Your task to perform on an android device: turn off priority inbox in the gmail app Image 0: 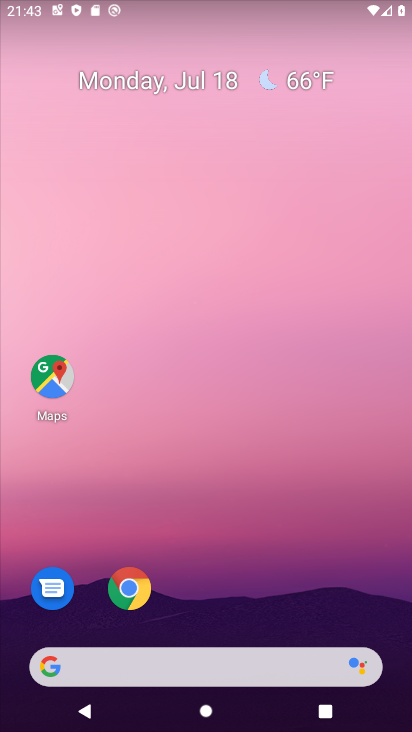
Step 0: press home button
Your task to perform on an android device: turn off priority inbox in the gmail app Image 1: 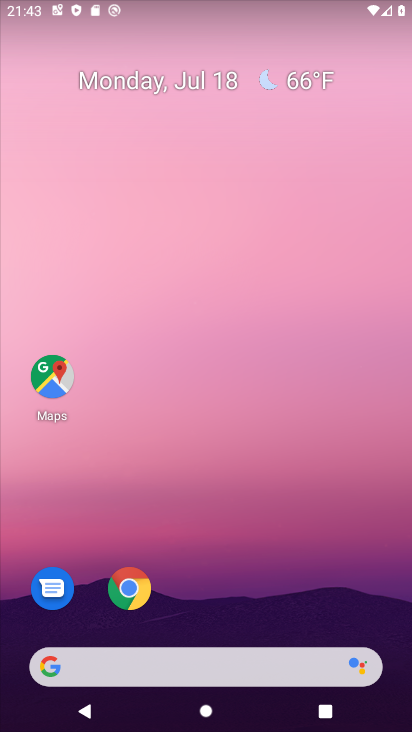
Step 1: drag from (129, 665) to (315, 163)
Your task to perform on an android device: turn off priority inbox in the gmail app Image 2: 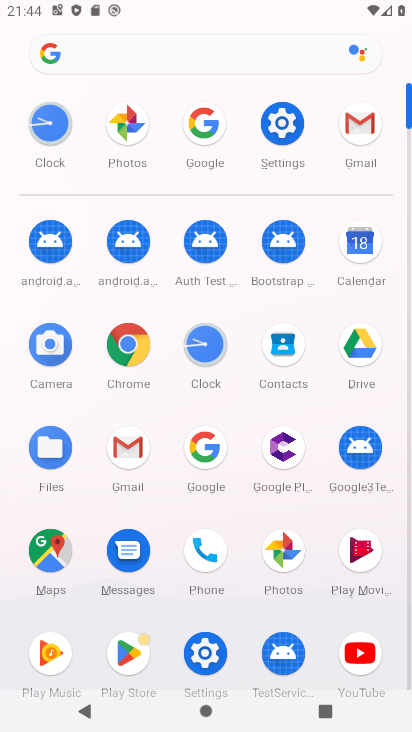
Step 2: click (353, 116)
Your task to perform on an android device: turn off priority inbox in the gmail app Image 3: 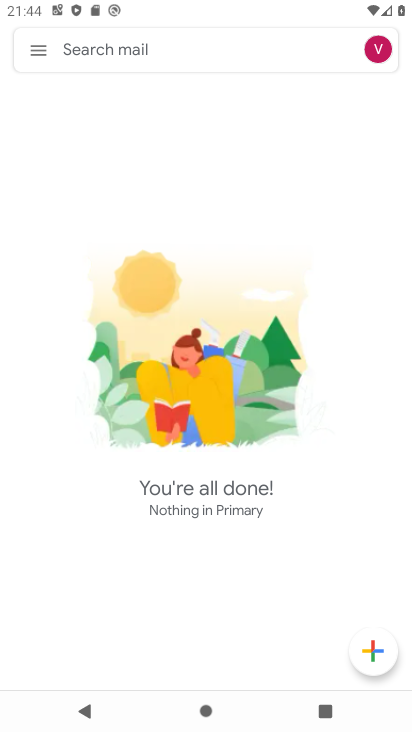
Step 3: click (42, 55)
Your task to perform on an android device: turn off priority inbox in the gmail app Image 4: 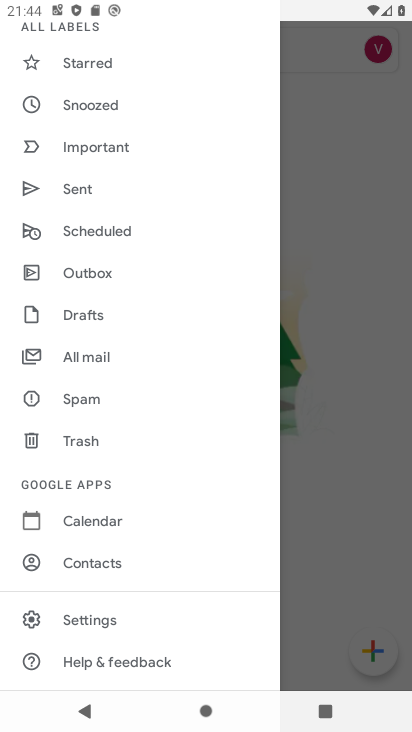
Step 4: click (104, 617)
Your task to perform on an android device: turn off priority inbox in the gmail app Image 5: 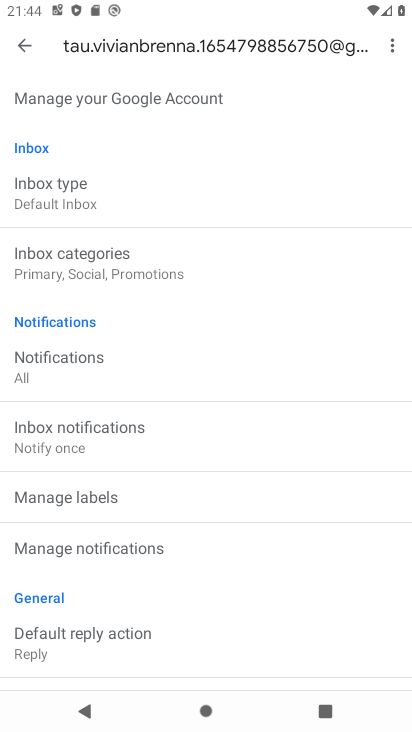
Step 5: click (72, 192)
Your task to perform on an android device: turn off priority inbox in the gmail app Image 6: 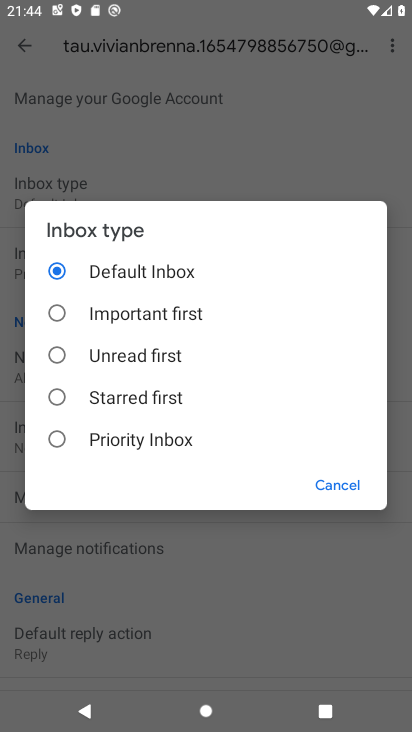
Step 6: task complete